Your task to perform on an android device: Search for dining sets on article.com Image 0: 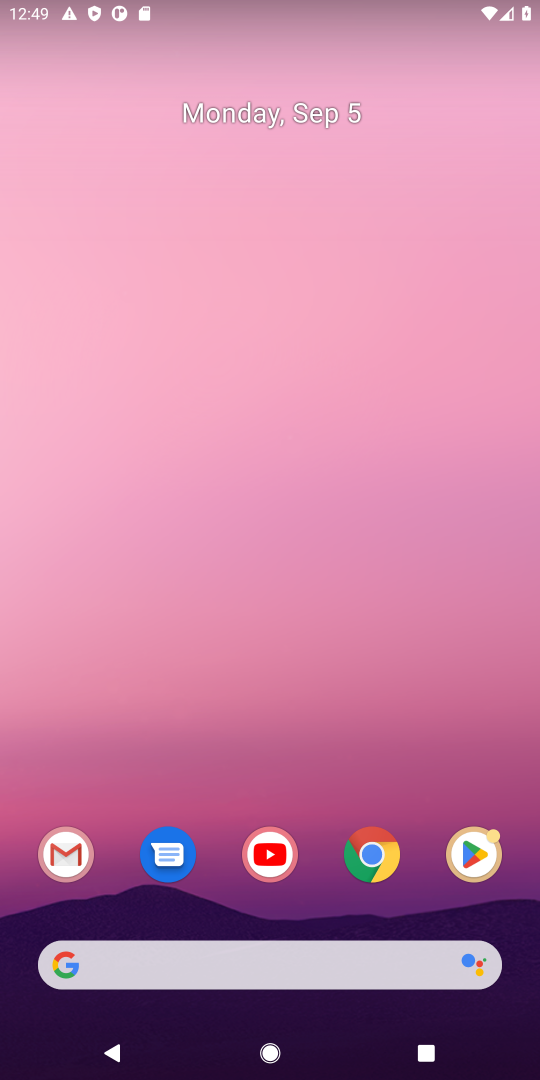
Step 0: click (307, 954)
Your task to perform on an android device: Search for dining sets on article.com Image 1: 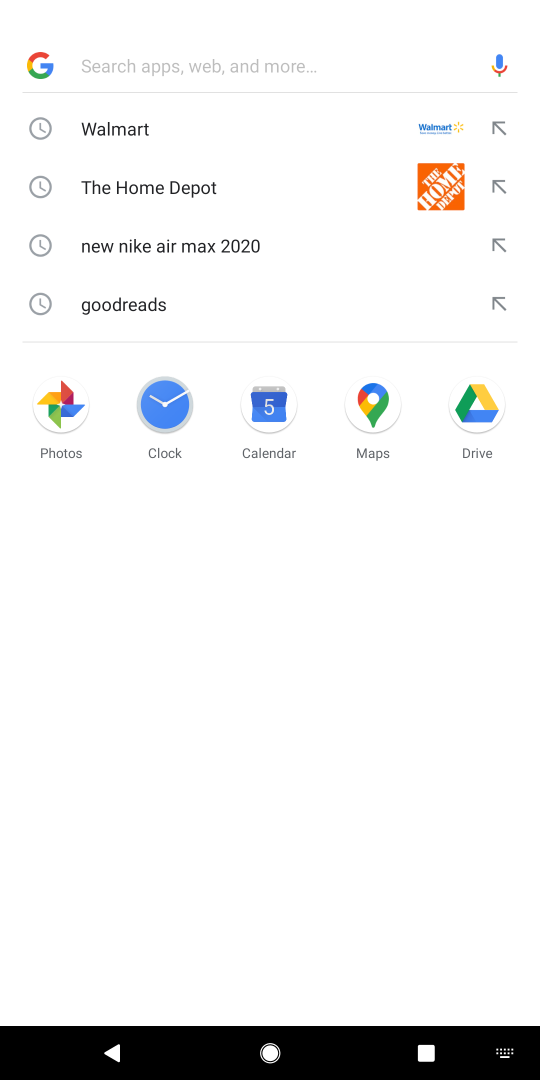
Step 1: type "article.com"
Your task to perform on an android device: Search for dining sets on article.com Image 2: 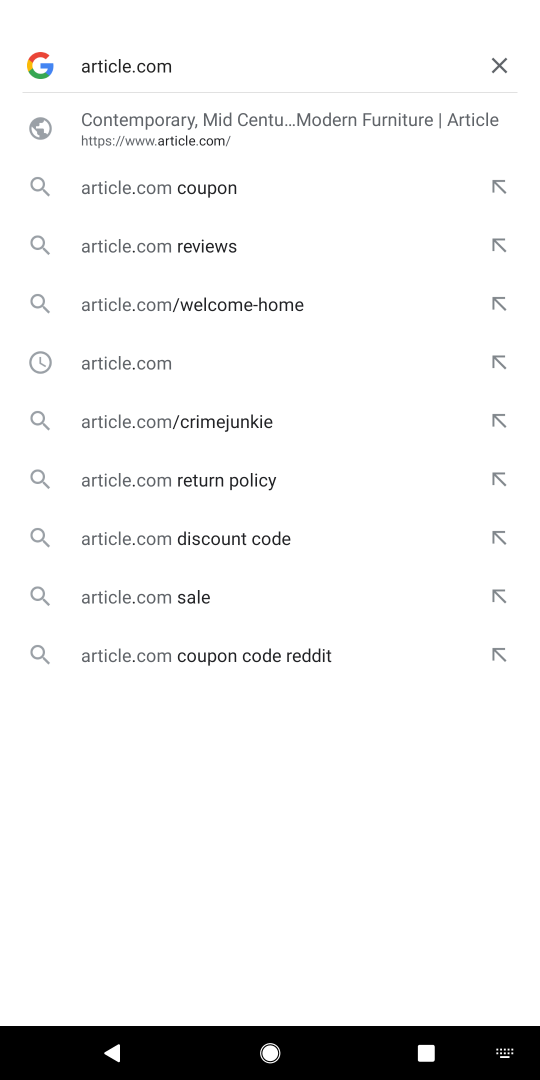
Step 2: press enter
Your task to perform on an android device: Search for dining sets on article.com Image 3: 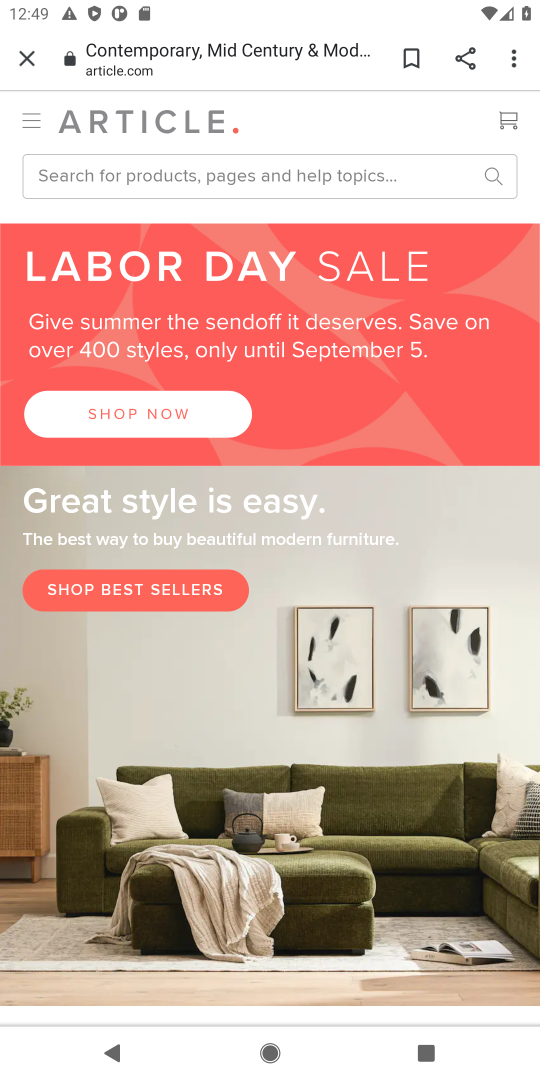
Step 3: click (139, 184)
Your task to perform on an android device: Search for dining sets on article.com Image 4: 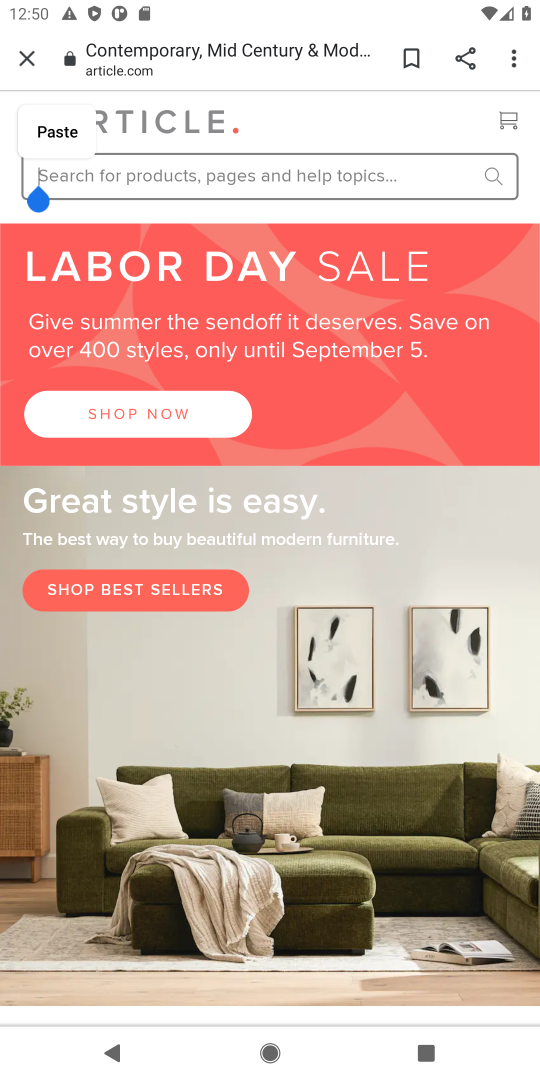
Step 4: press enter
Your task to perform on an android device: Search for dining sets on article.com Image 5: 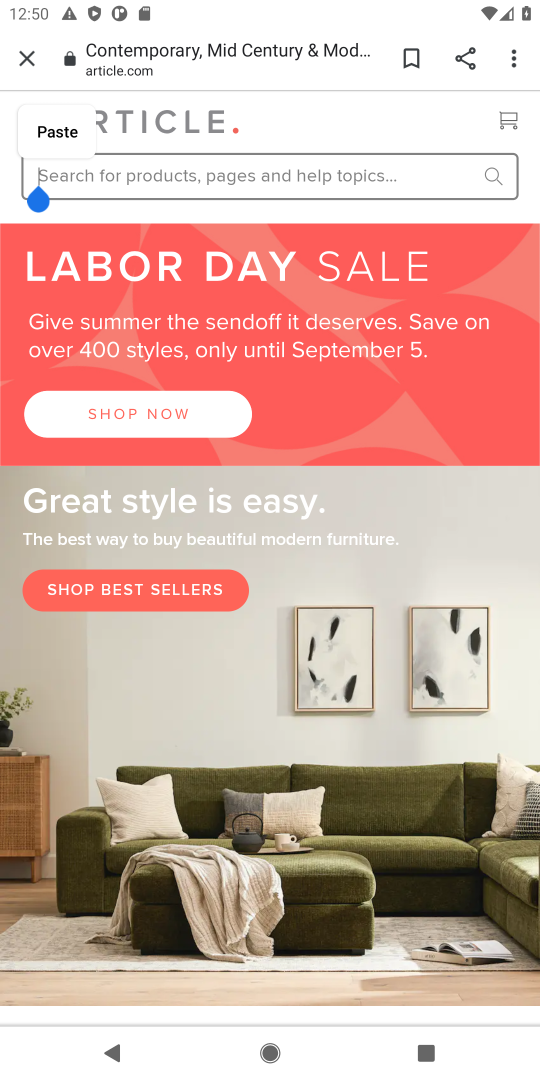
Step 5: type "dining sets"
Your task to perform on an android device: Search for dining sets on article.com Image 6: 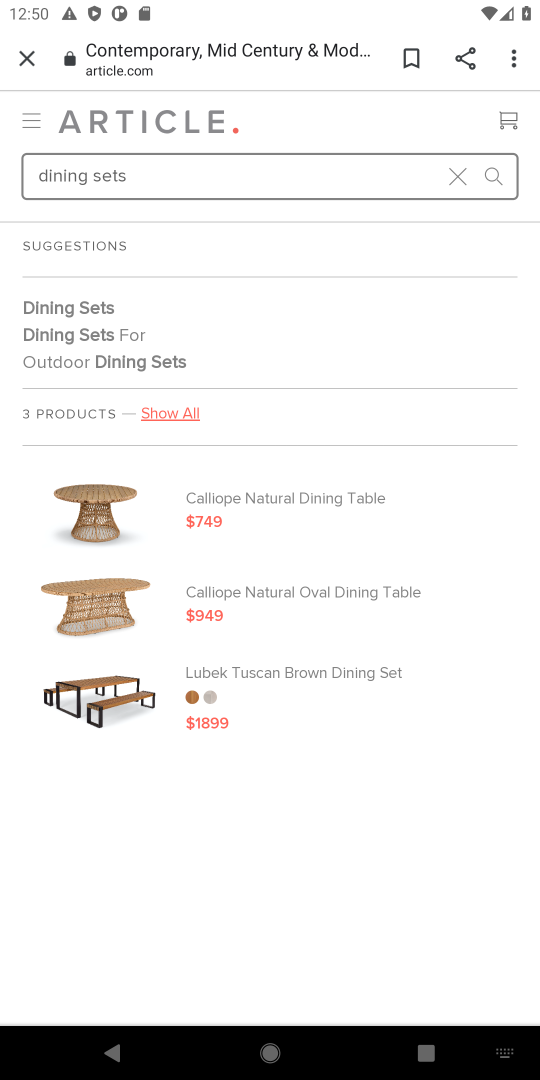
Step 6: task complete